Your task to perform on an android device: Open Reddit.com Image 0: 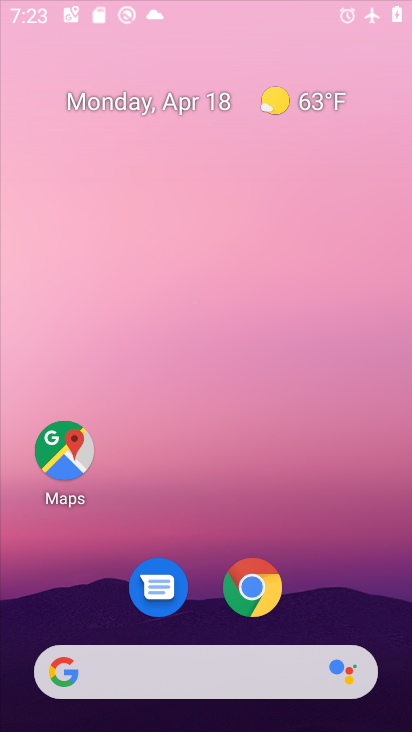
Step 0: drag from (255, 583) to (244, 240)
Your task to perform on an android device: Open Reddit.com Image 1: 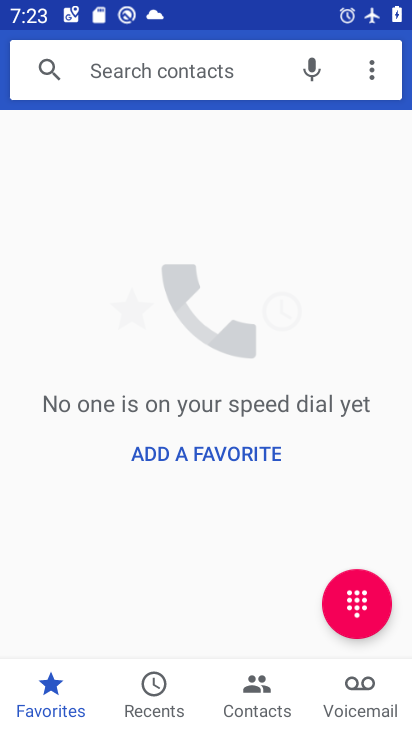
Step 1: press home button
Your task to perform on an android device: Open Reddit.com Image 2: 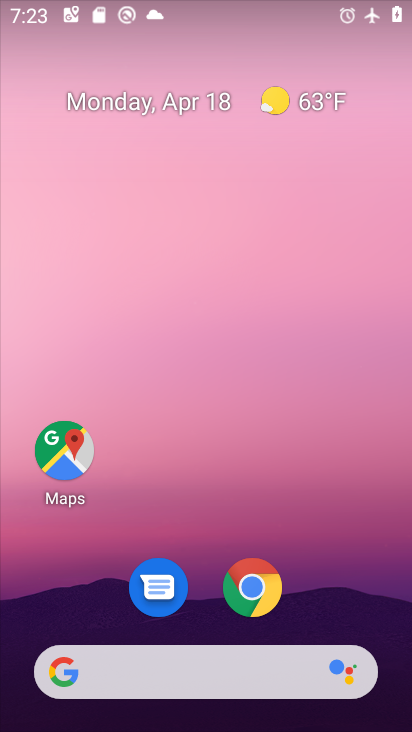
Step 2: click (262, 586)
Your task to perform on an android device: Open Reddit.com Image 3: 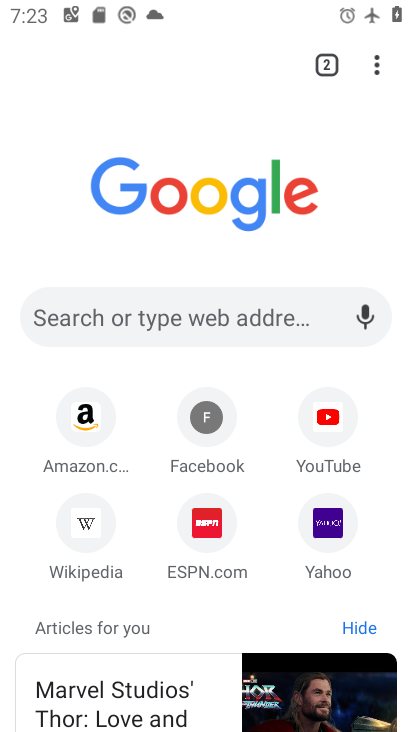
Step 3: click (259, 328)
Your task to perform on an android device: Open Reddit.com Image 4: 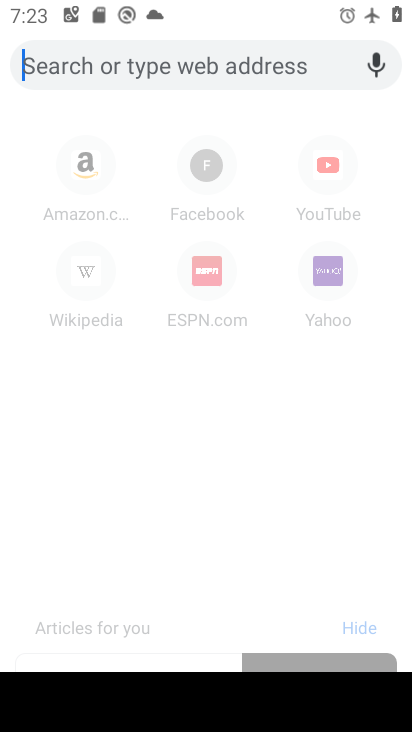
Step 4: type "reddit.com"
Your task to perform on an android device: Open Reddit.com Image 5: 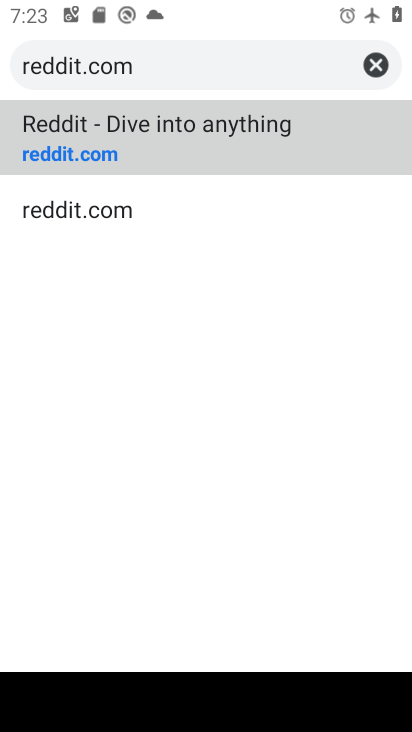
Step 5: click (73, 119)
Your task to perform on an android device: Open Reddit.com Image 6: 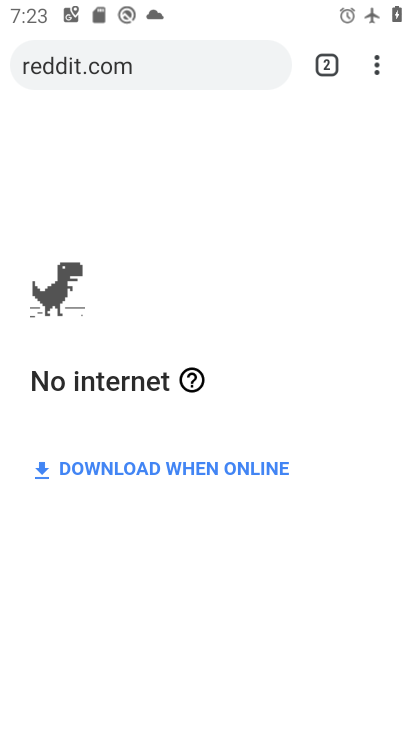
Step 6: task complete